Your task to perform on an android device: What's on my calendar today? Image 0: 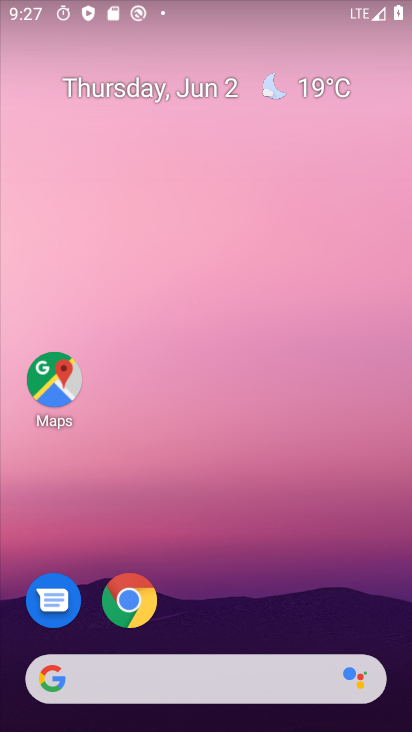
Step 0: drag from (197, 616) to (196, 173)
Your task to perform on an android device: What's on my calendar today? Image 1: 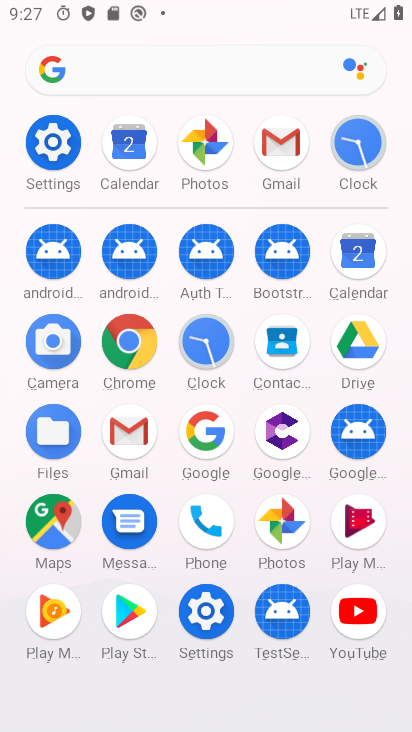
Step 1: click (359, 264)
Your task to perform on an android device: What's on my calendar today? Image 2: 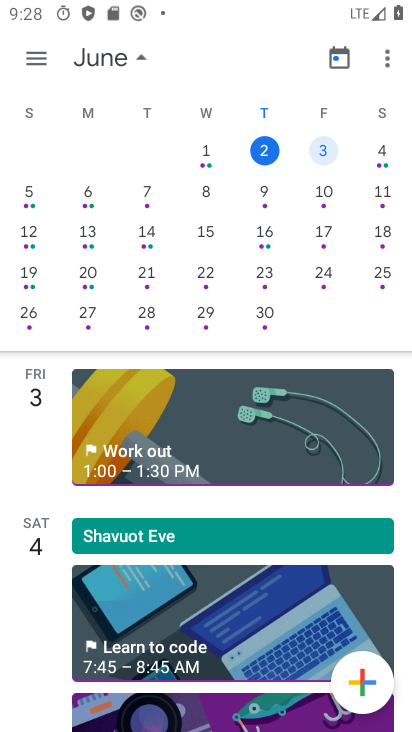
Step 2: click (270, 147)
Your task to perform on an android device: What's on my calendar today? Image 3: 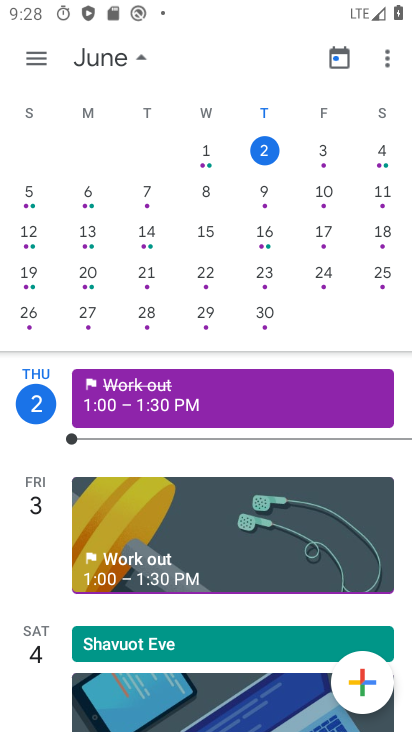
Step 3: click (309, 147)
Your task to perform on an android device: What's on my calendar today? Image 4: 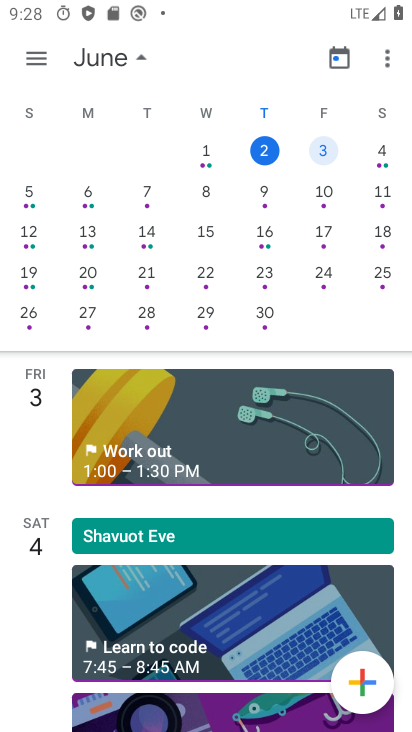
Step 4: click (266, 156)
Your task to perform on an android device: What's on my calendar today? Image 5: 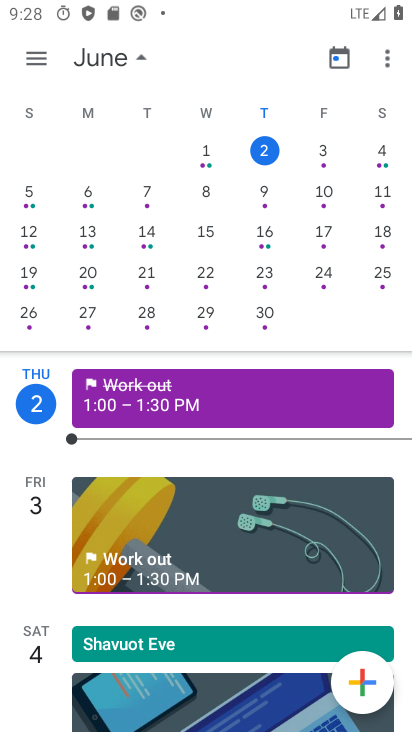
Step 5: task complete